Your task to perform on an android device: toggle location history Image 0: 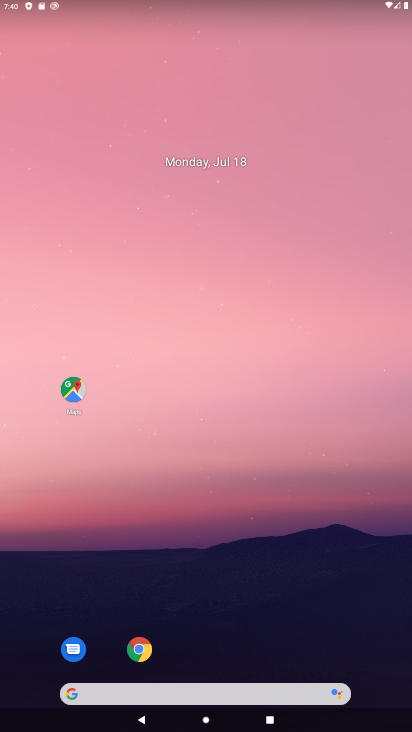
Step 0: drag from (307, 644) to (192, 124)
Your task to perform on an android device: toggle location history Image 1: 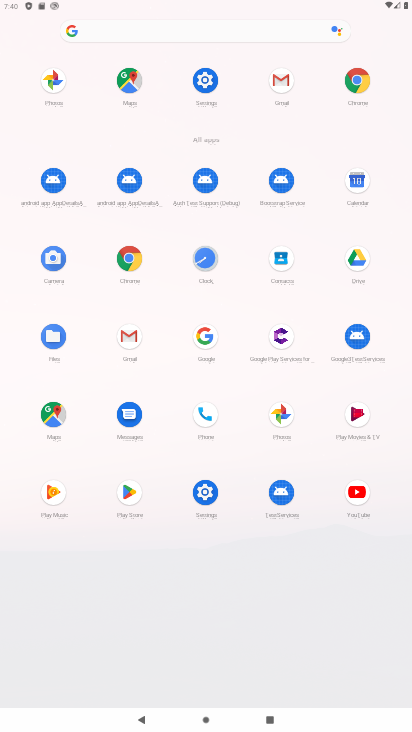
Step 1: click (206, 83)
Your task to perform on an android device: toggle location history Image 2: 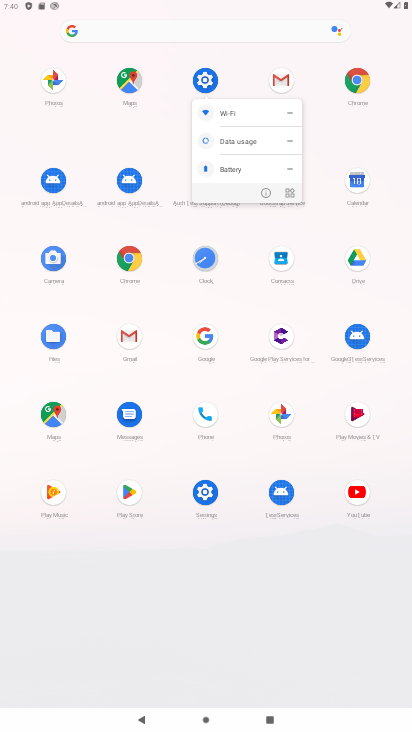
Step 2: click (204, 73)
Your task to perform on an android device: toggle location history Image 3: 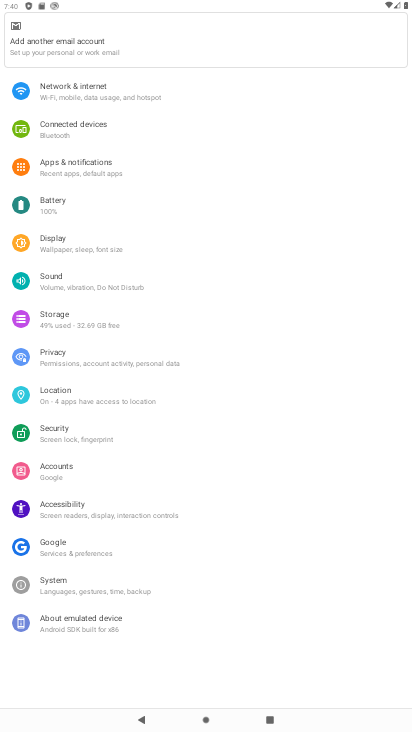
Step 3: click (102, 407)
Your task to perform on an android device: toggle location history Image 4: 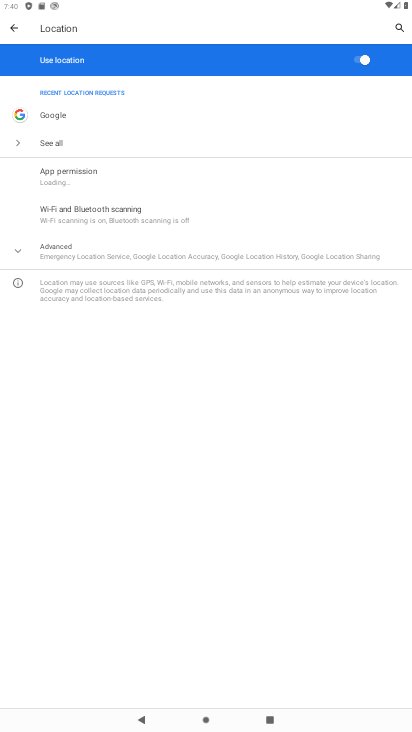
Step 4: click (123, 251)
Your task to perform on an android device: toggle location history Image 5: 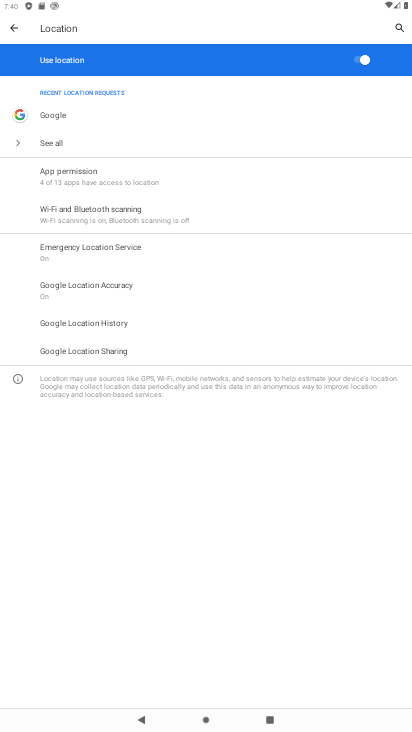
Step 5: click (74, 326)
Your task to perform on an android device: toggle location history Image 6: 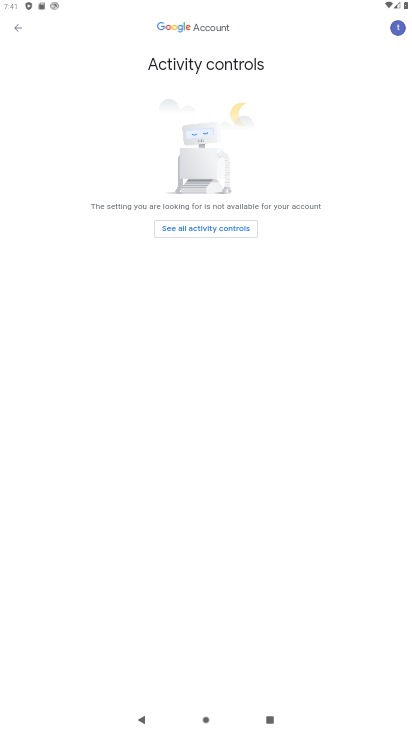
Step 6: task complete